Your task to perform on an android device: delete browsing data in the chrome app Image 0: 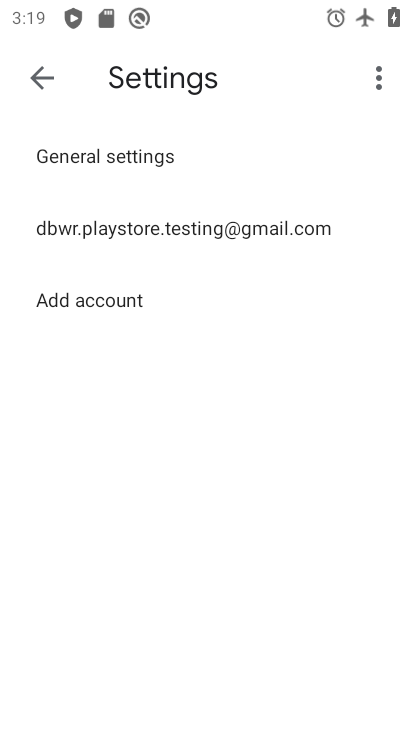
Step 0: press home button
Your task to perform on an android device: delete browsing data in the chrome app Image 1: 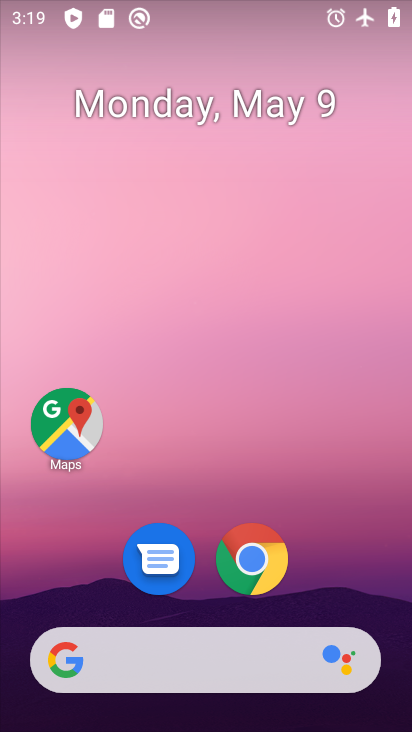
Step 1: click (257, 561)
Your task to perform on an android device: delete browsing data in the chrome app Image 2: 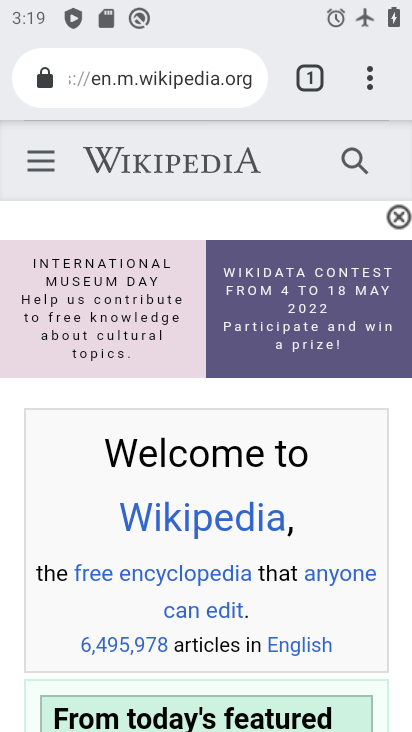
Step 2: click (371, 89)
Your task to perform on an android device: delete browsing data in the chrome app Image 3: 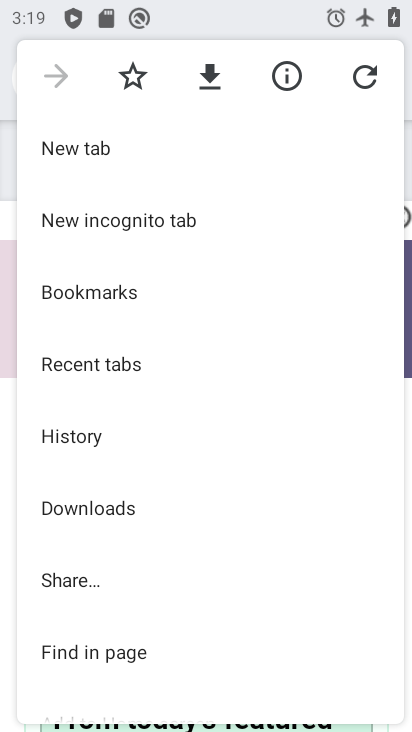
Step 3: click (78, 443)
Your task to perform on an android device: delete browsing data in the chrome app Image 4: 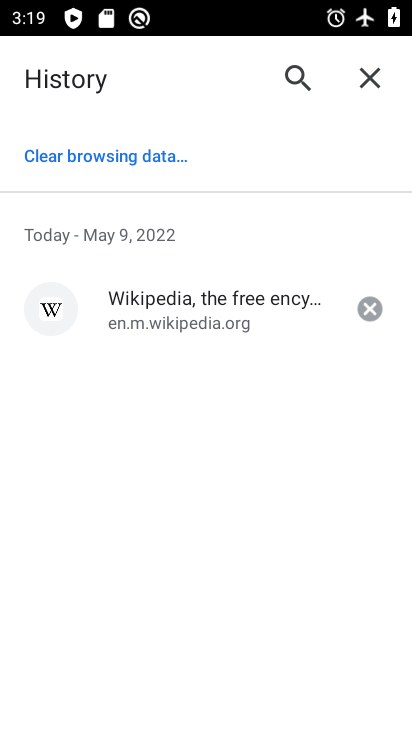
Step 4: click (108, 156)
Your task to perform on an android device: delete browsing data in the chrome app Image 5: 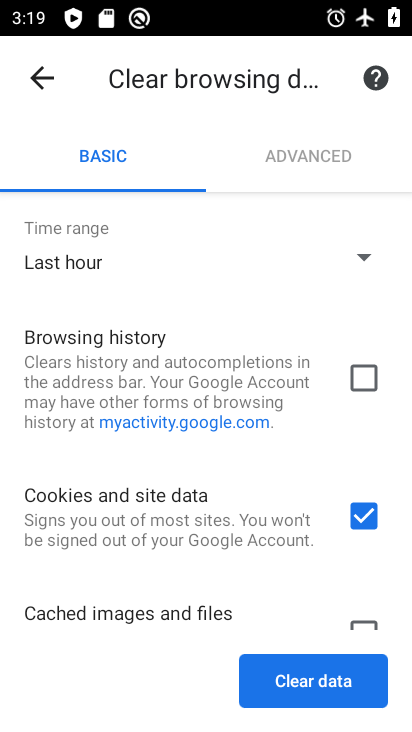
Step 5: click (368, 511)
Your task to perform on an android device: delete browsing data in the chrome app Image 6: 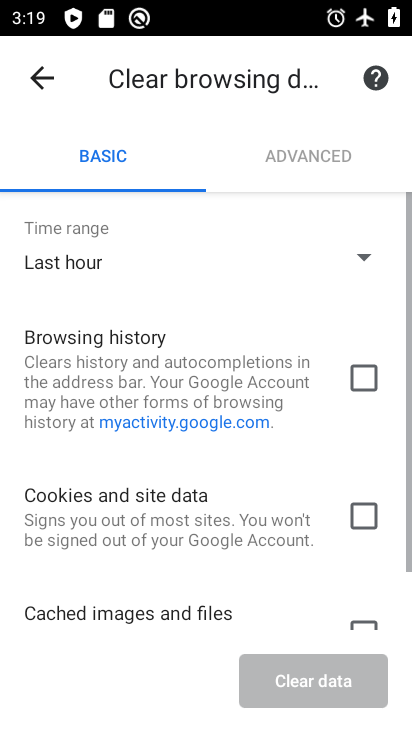
Step 6: click (365, 370)
Your task to perform on an android device: delete browsing data in the chrome app Image 7: 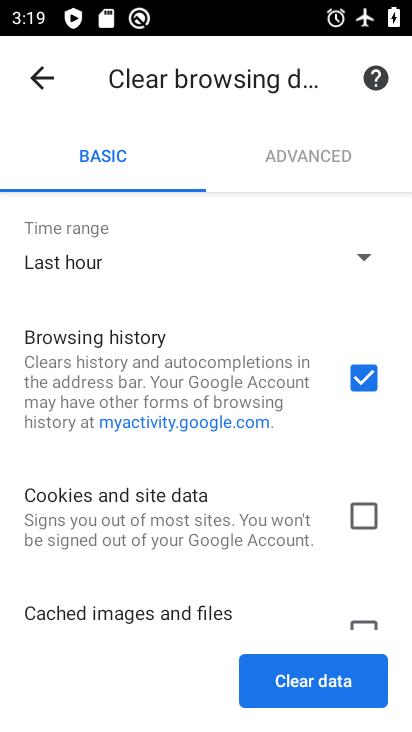
Step 7: click (332, 678)
Your task to perform on an android device: delete browsing data in the chrome app Image 8: 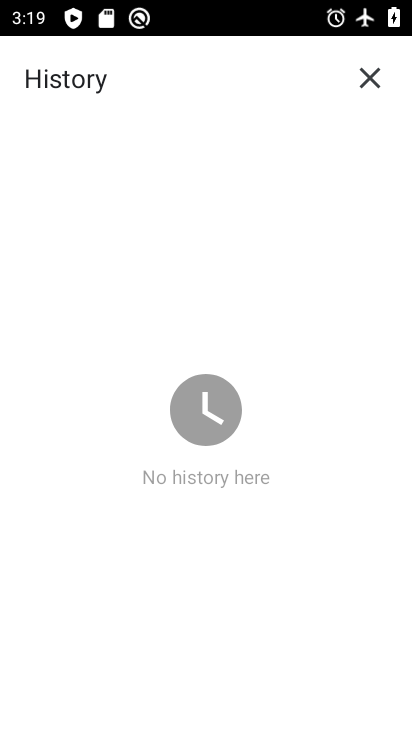
Step 8: task complete